Your task to perform on an android device: What time is it in London? Image 0: 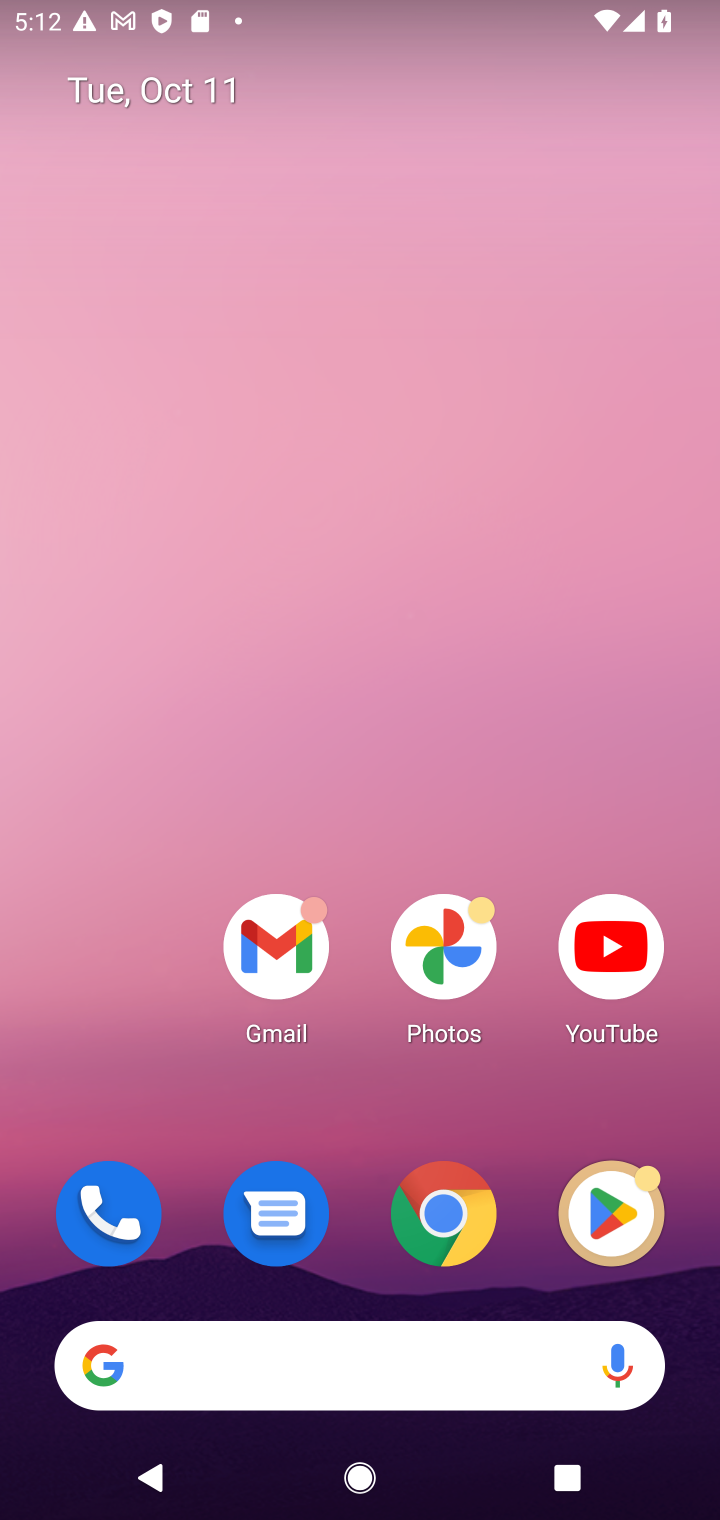
Step 0: drag from (225, 709) to (576, 141)
Your task to perform on an android device: What time is it in London? Image 1: 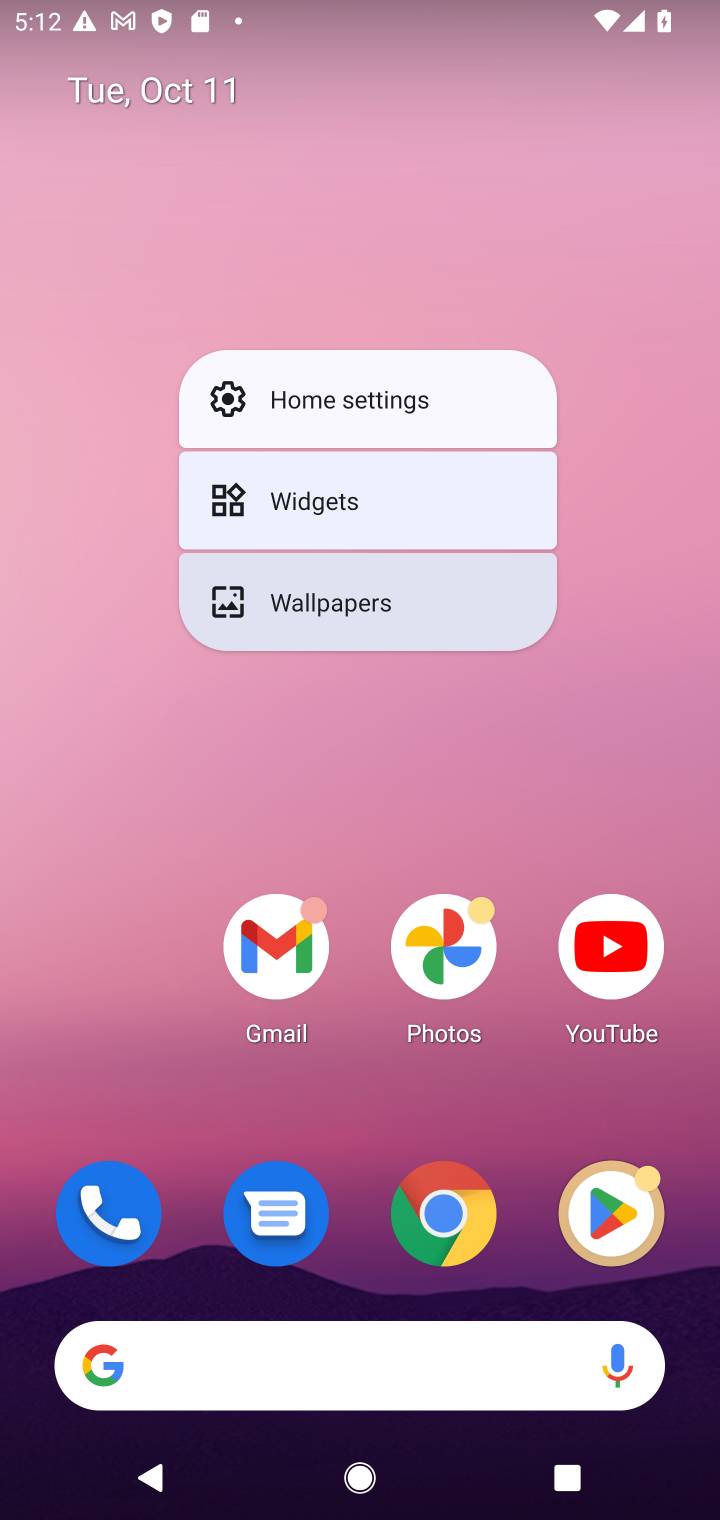
Step 1: click (408, 1082)
Your task to perform on an android device: What time is it in London? Image 2: 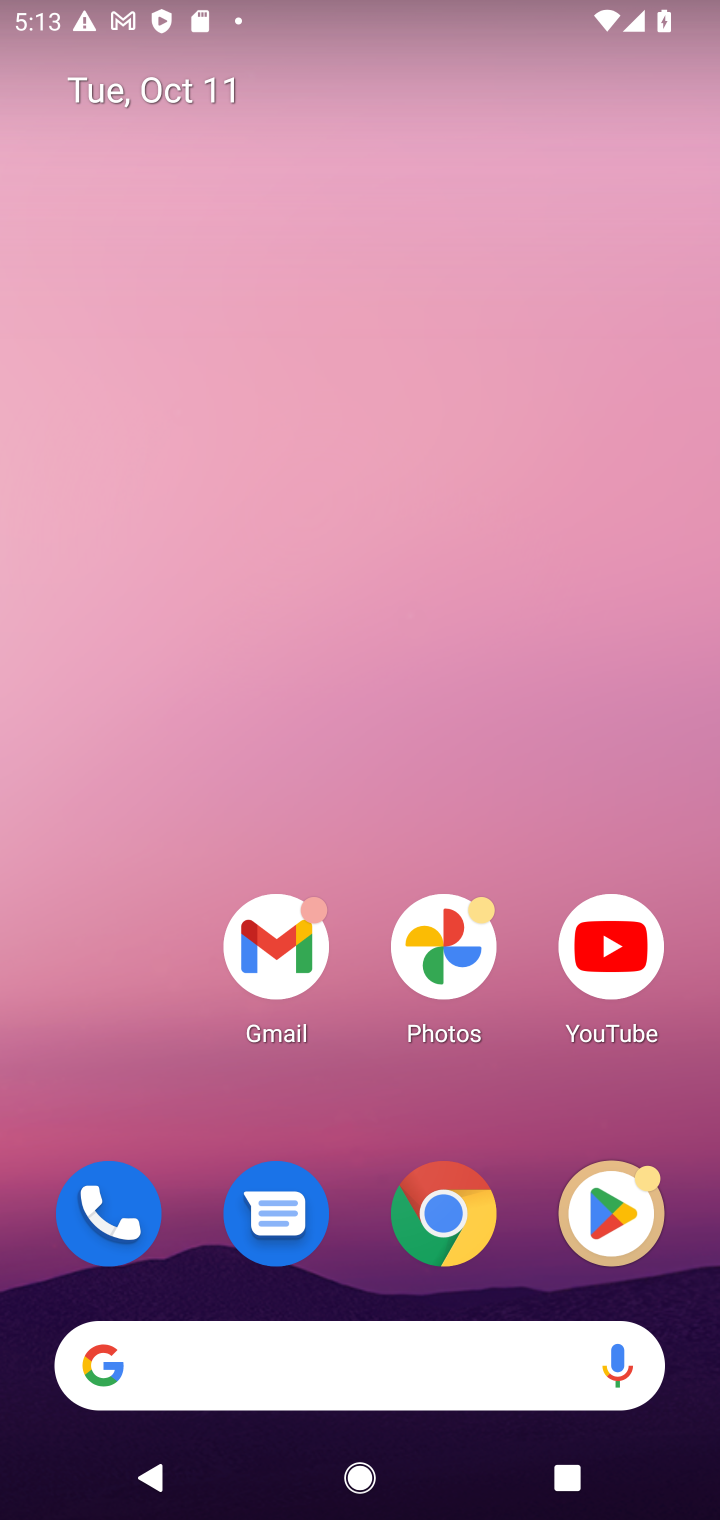
Step 2: click (223, 178)
Your task to perform on an android device: What time is it in London? Image 3: 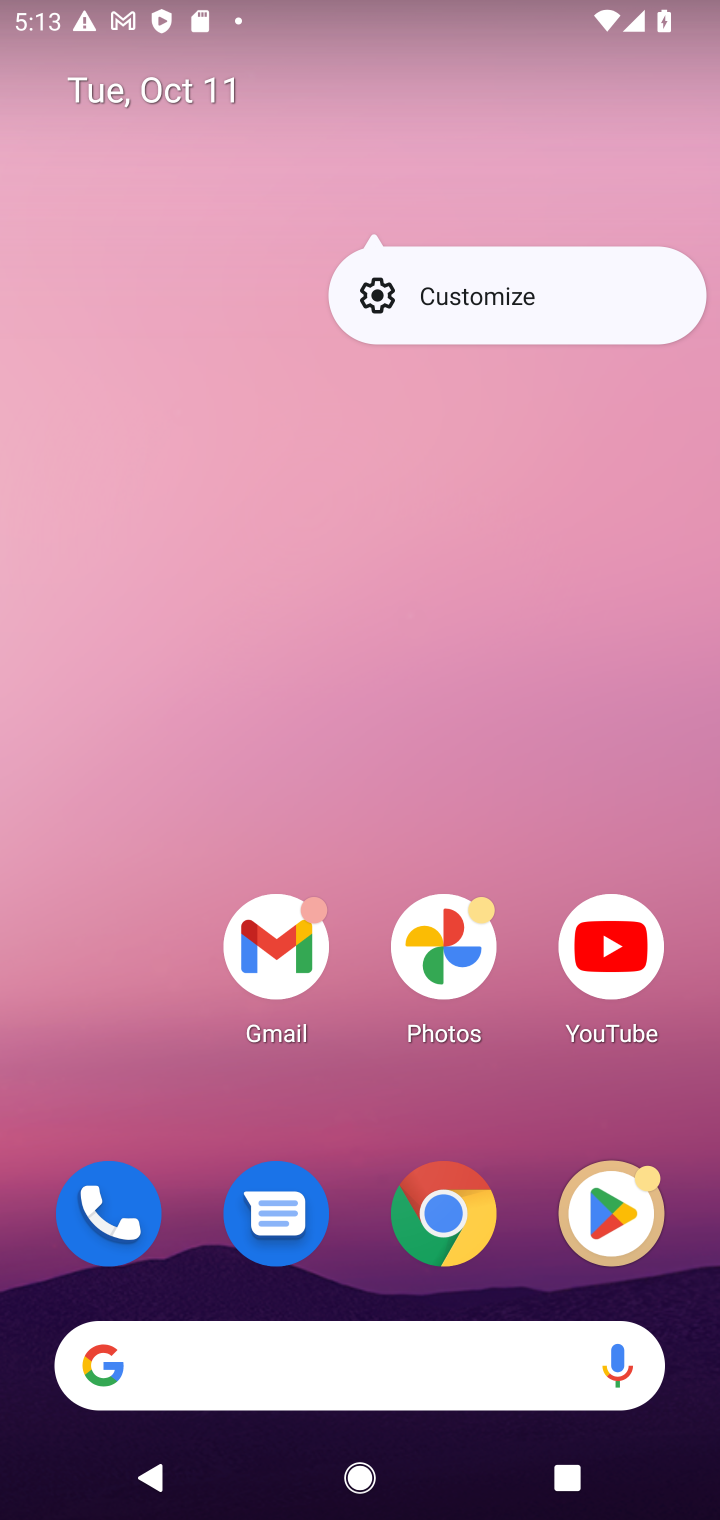
Step 3: drag from (343, 1315) to (475, 314)
Your task to perform on an android device: What time is it in London? Image 4: 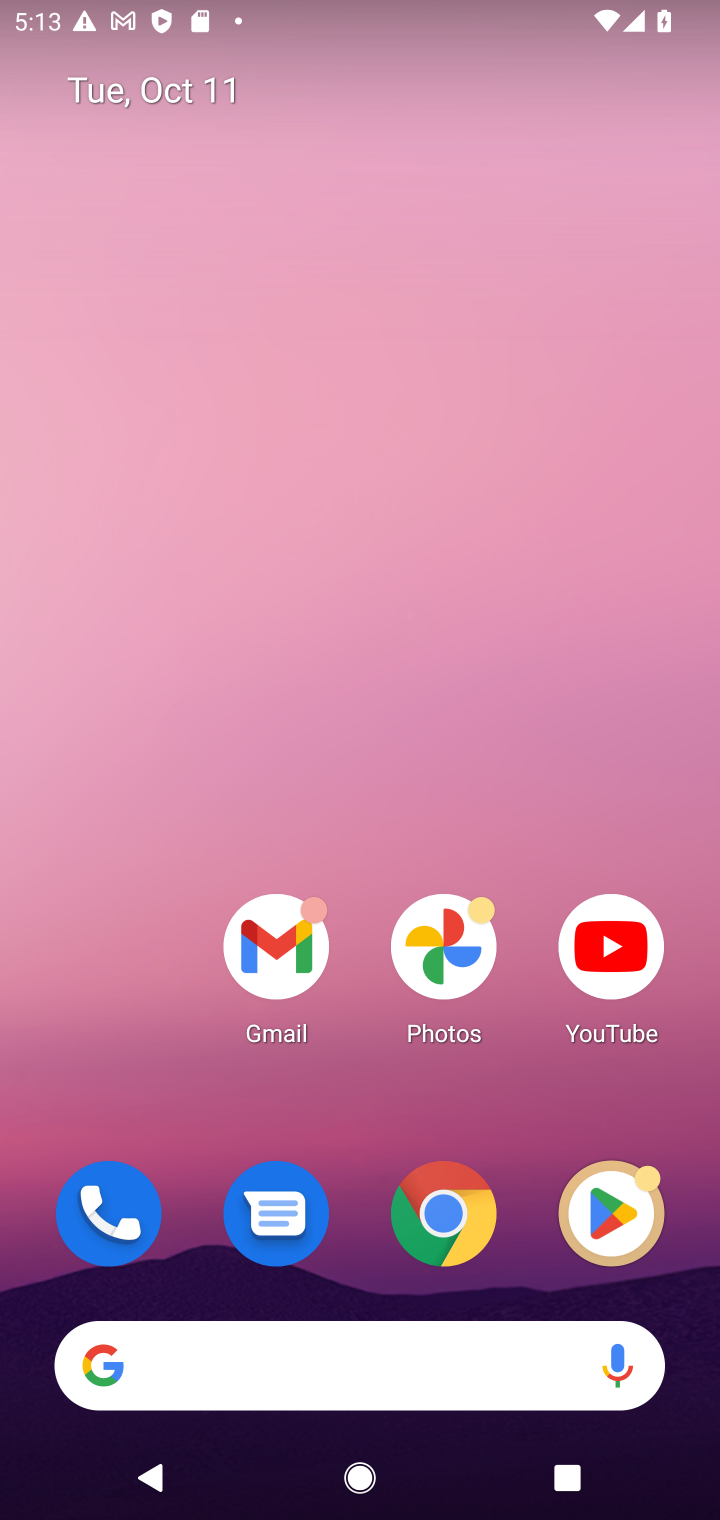
Step 4: drag from (398, 1355) to (435, 426)
Your task to perform on an android device: What time is it in London? Image 5: 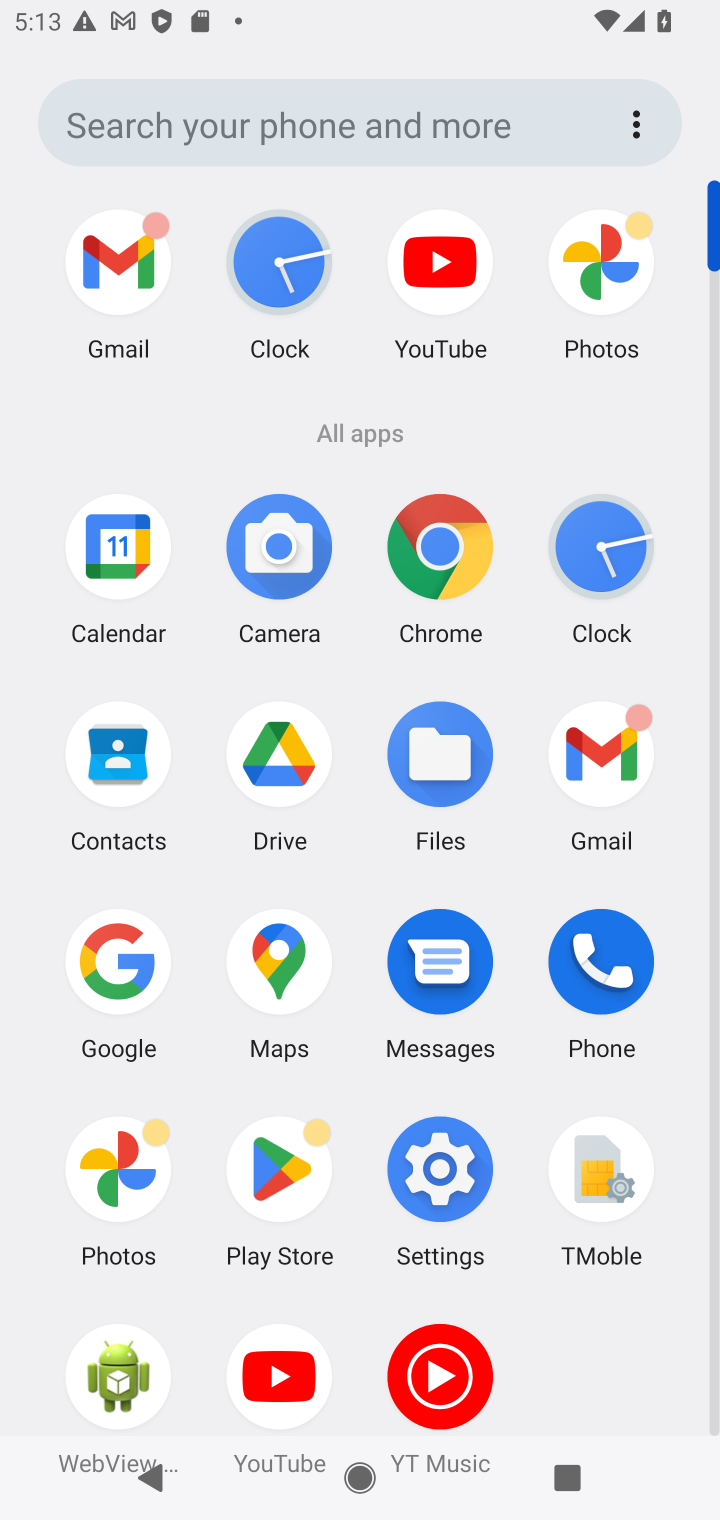
Step 5: click (121, 981)
Your task to perform on an android device: What time is it in London? Image 6: 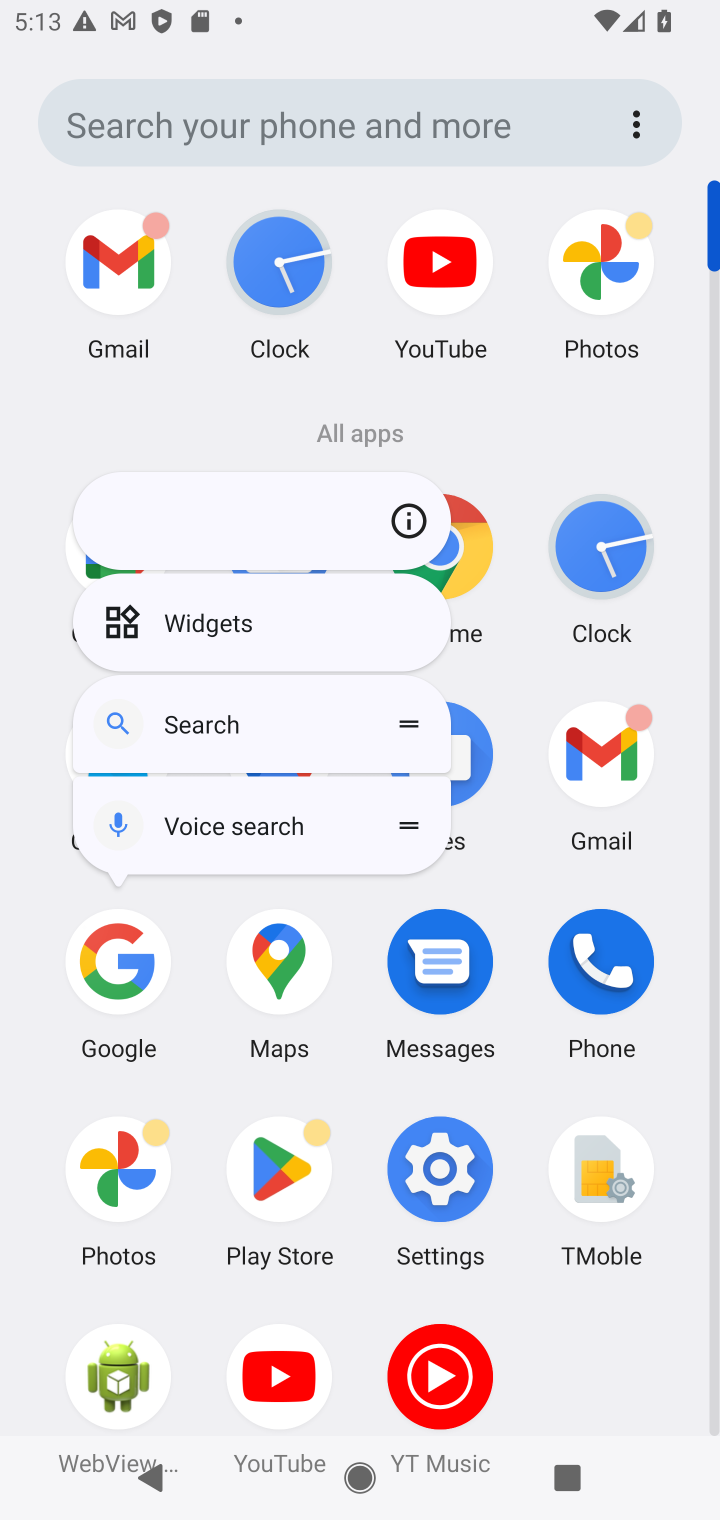
Step 6: click (122, 978)
Your task to perform on an android device: What time is it in London? Image 7: 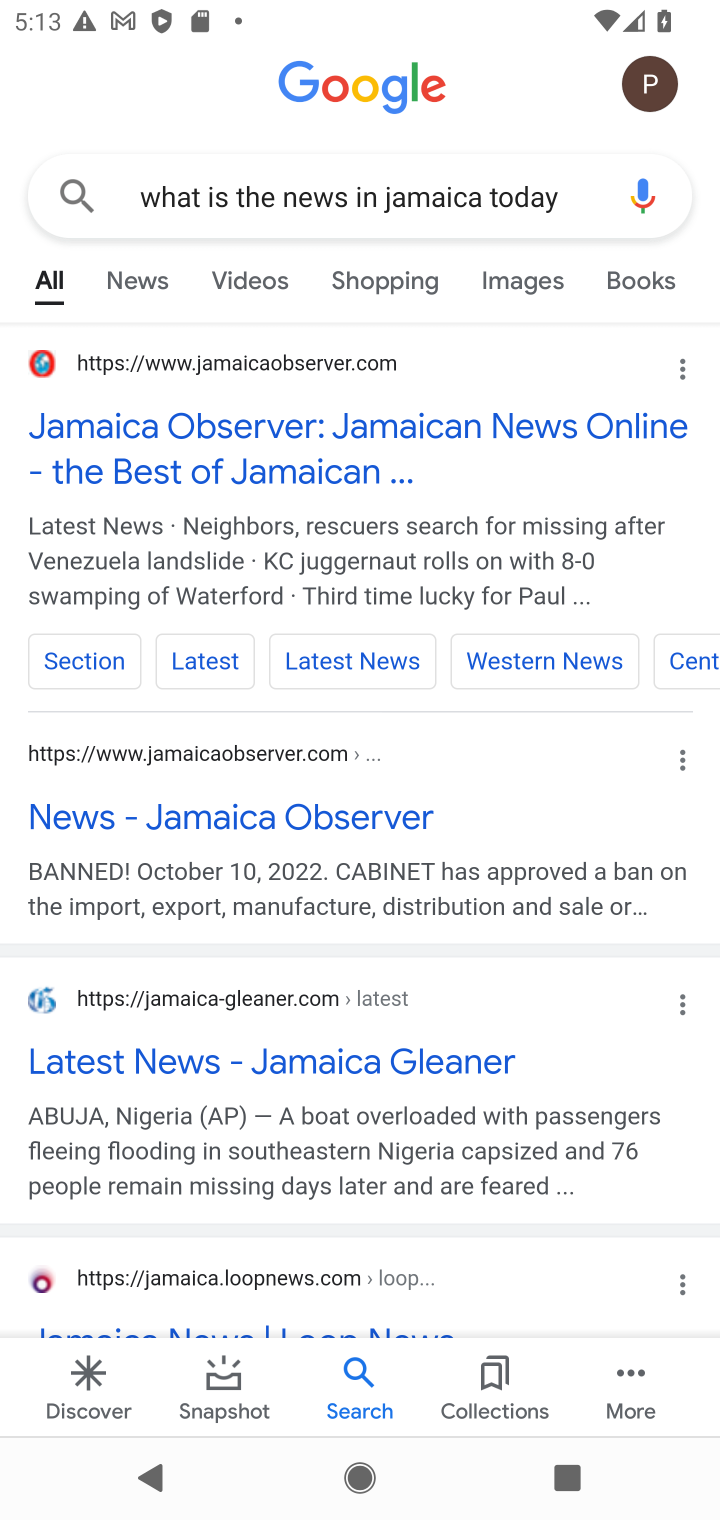
Step 7: click (367, 199)
Your task to perform on an android device: What time is it in London? Image 8: 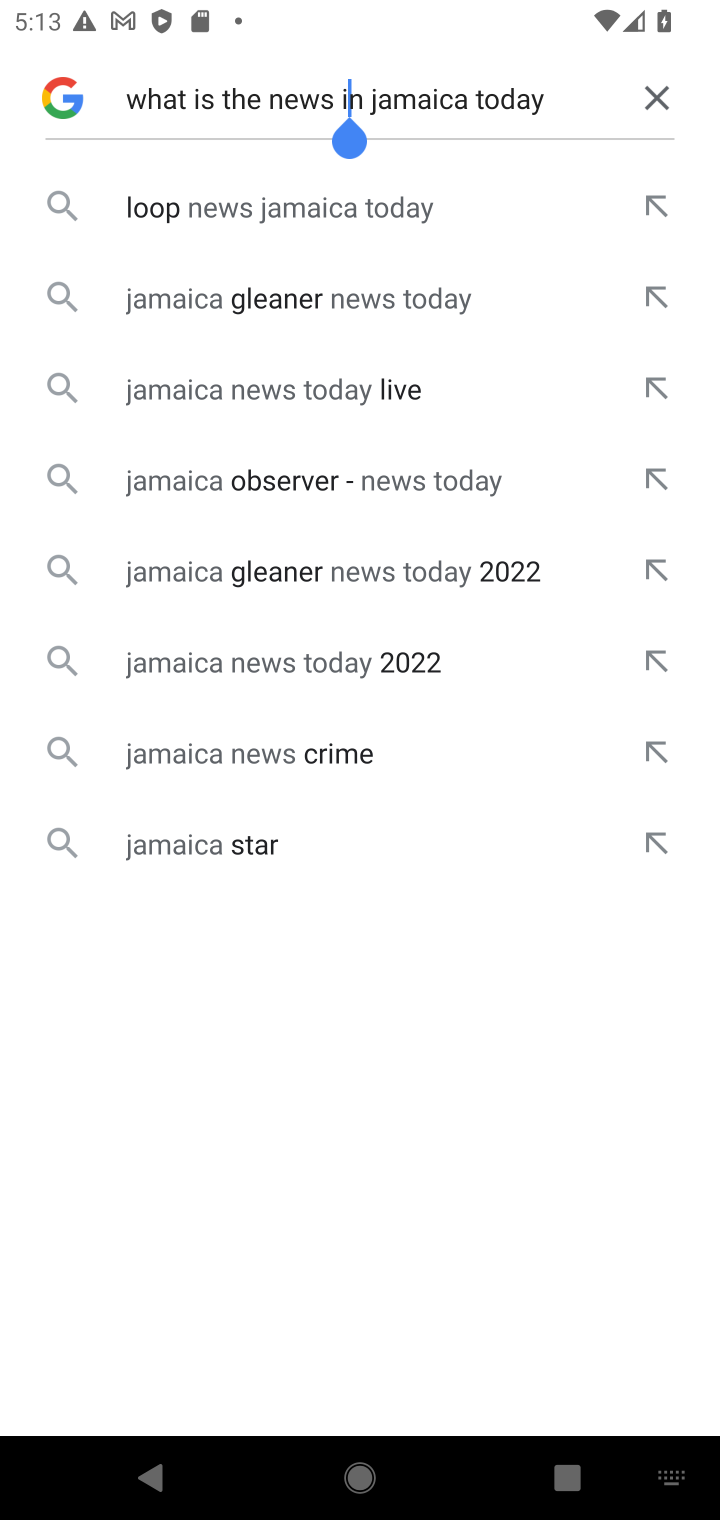
Step 8: click (669, 93)
Your task to perform on an android device: What time is it in London? Image 9: 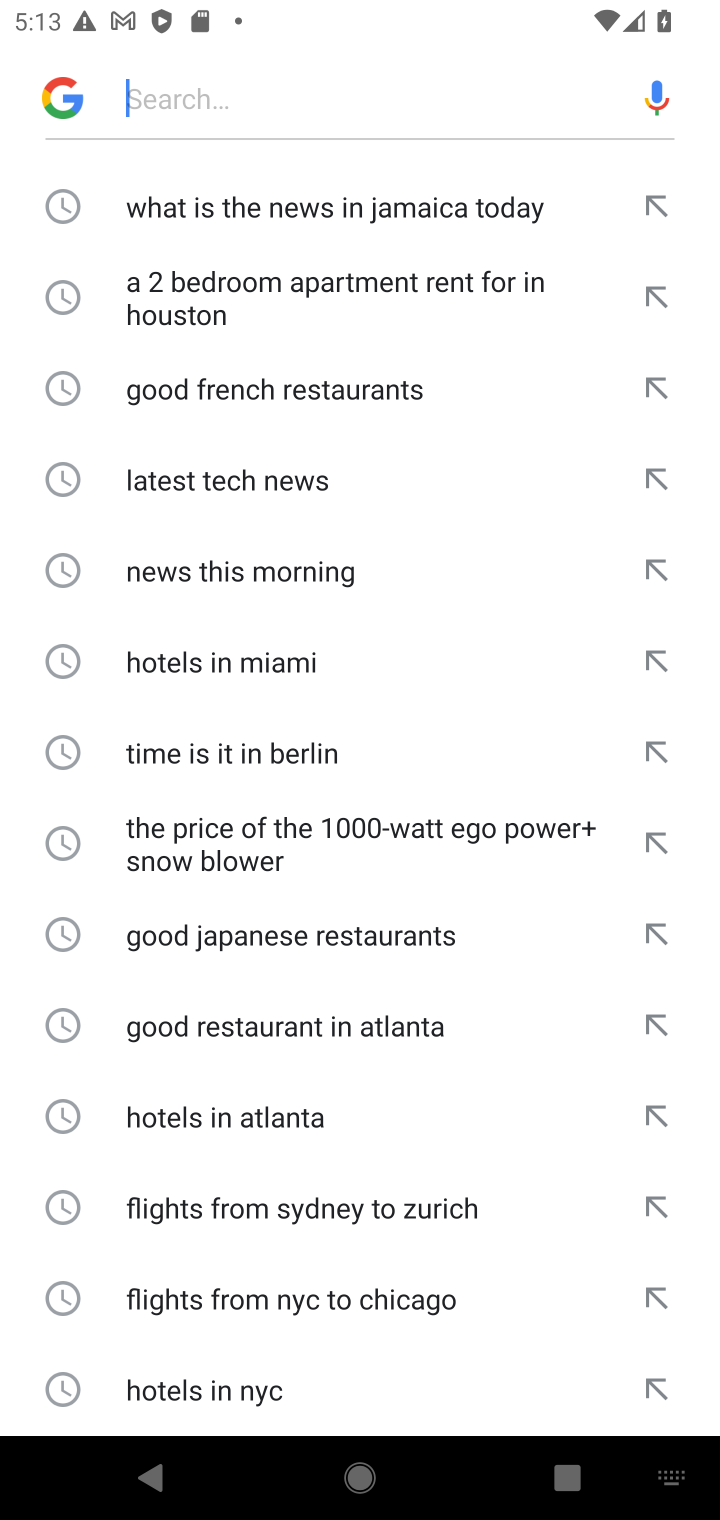
Step 9: type "What time is it in London?"
Your task to perform on an android device: What time is it in London? Image 10: 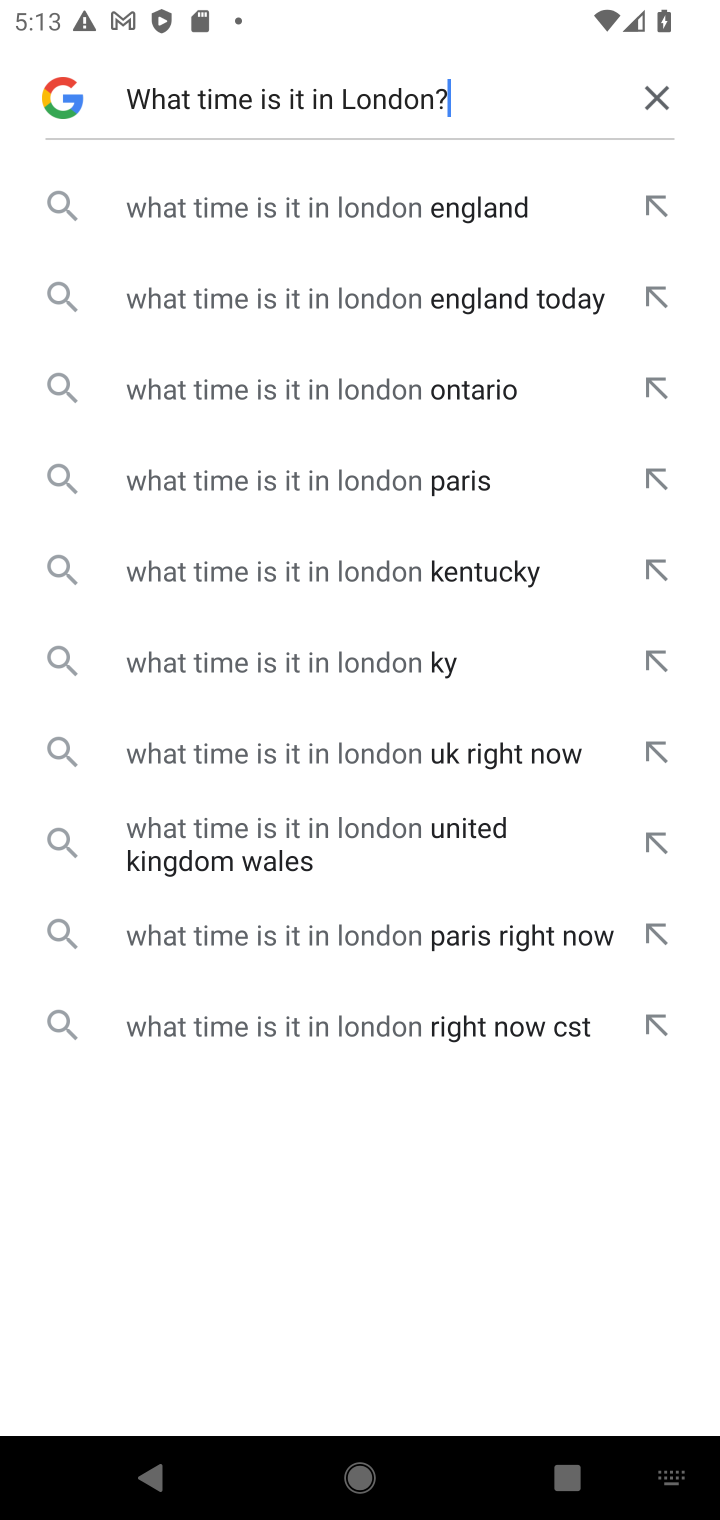
Step 10: click (277, 205)
Your task to perform on an android device: What time is it in London? Image 11: 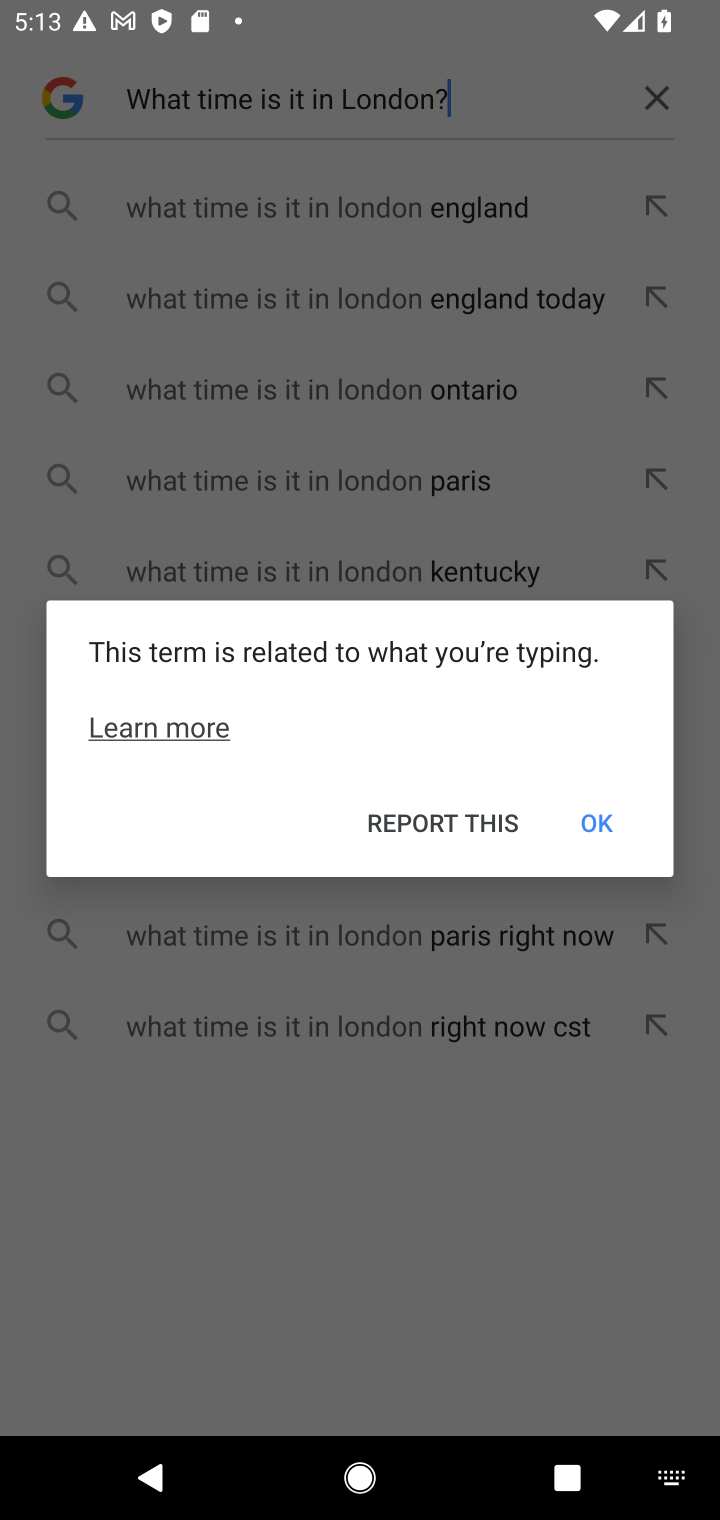
Step 11: click (604, 824)
Your task to perform on an android device: What time is it in London? Image 12: 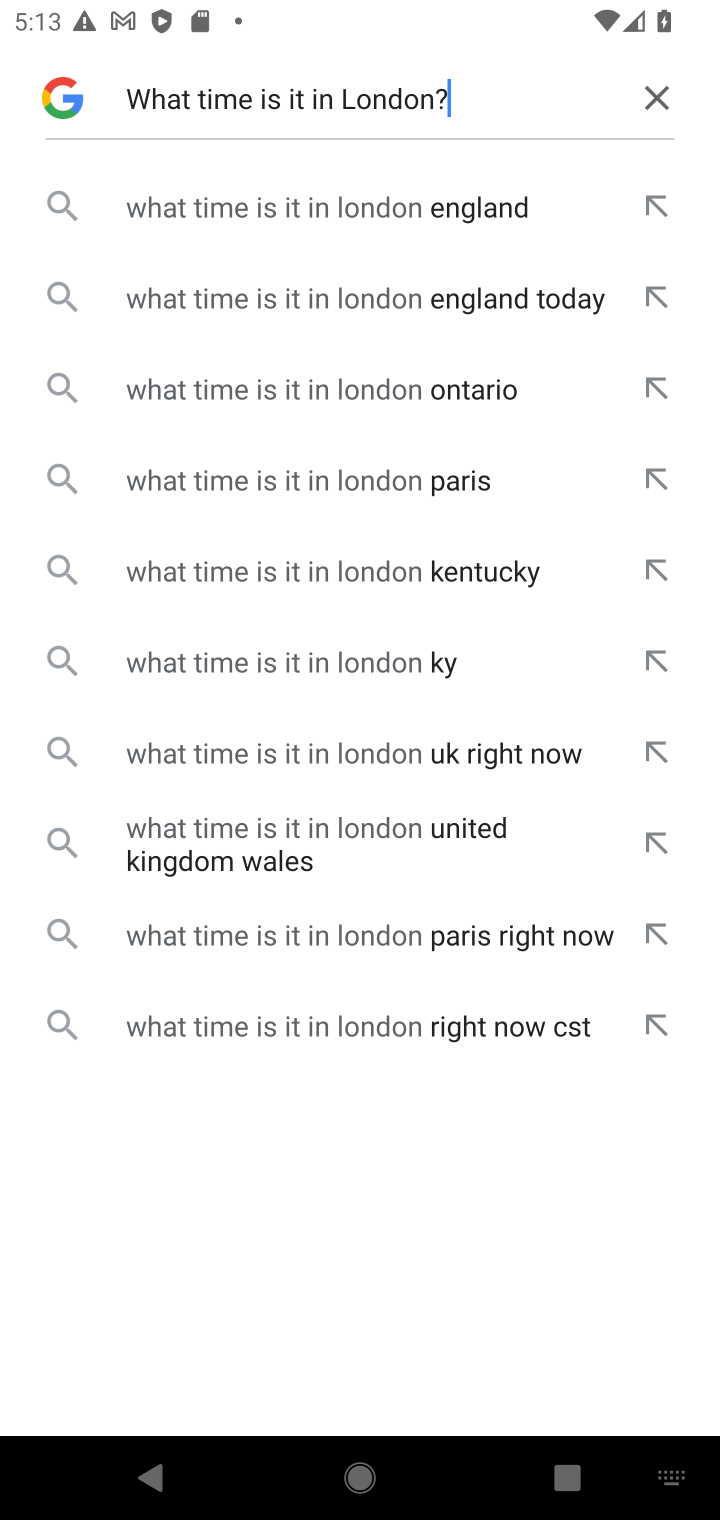
Step 12: click (452, 190)
Your task to perform on an android device: What time is it in London? Image 13: 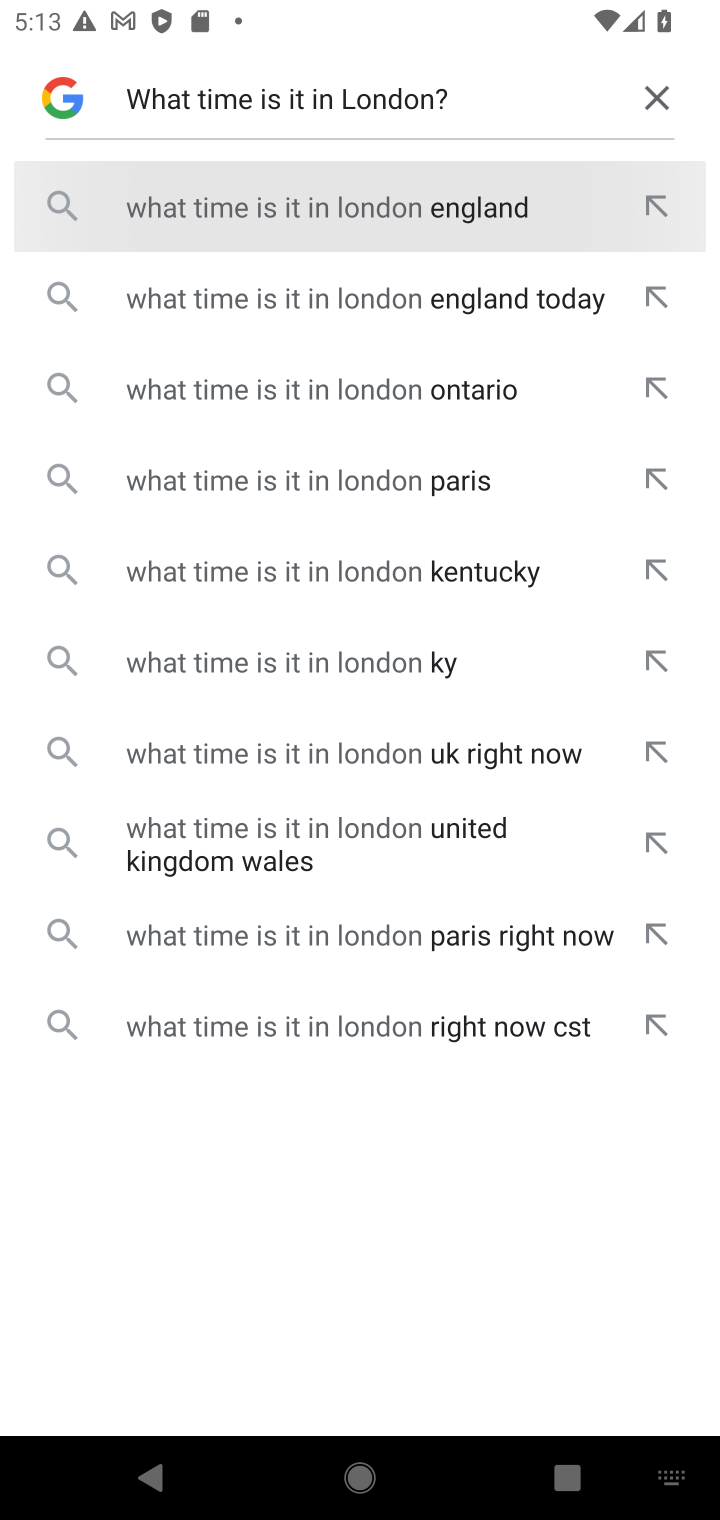
Step 13: click (438, 220)
Your task to perform on an android device: What time is it in London? Image 14: 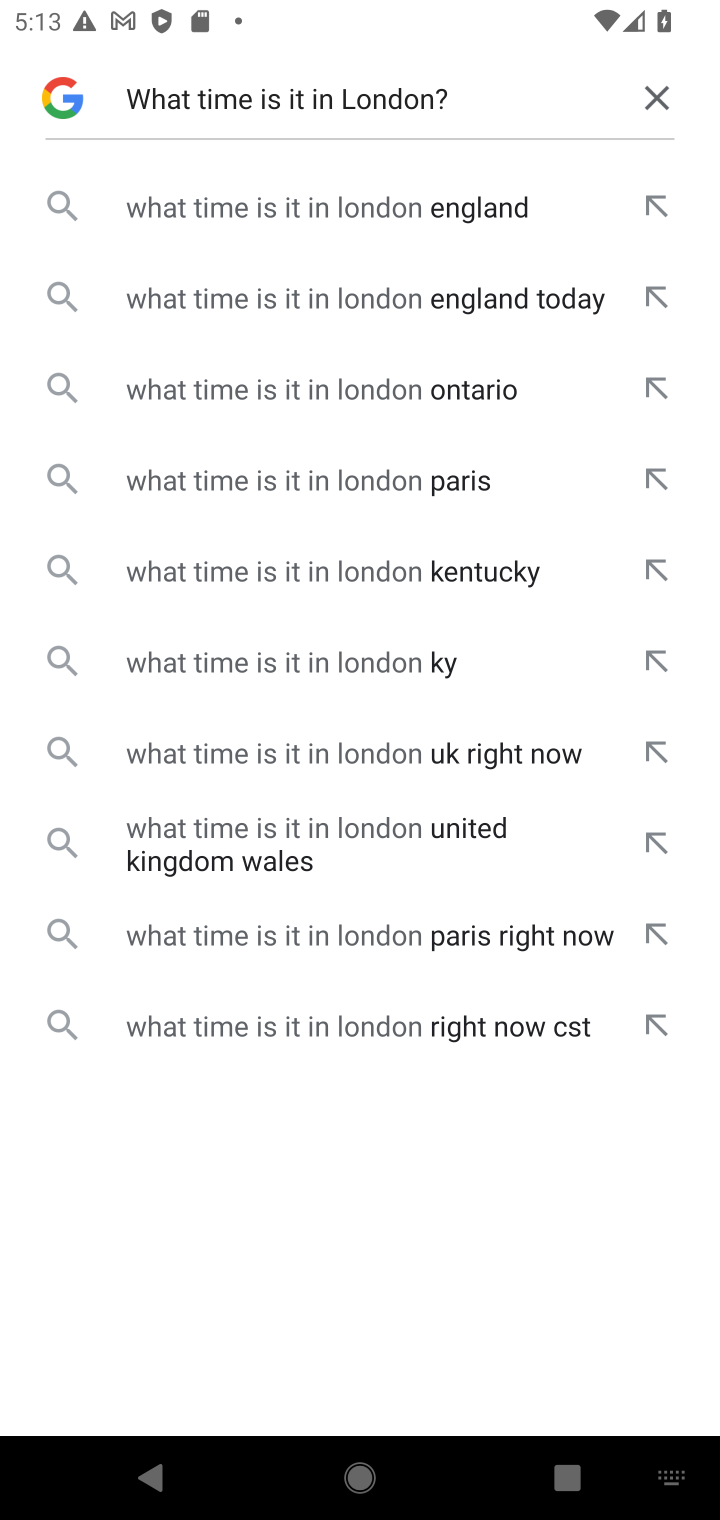
Step 14: click (407, 212)
Your task to perform on an android device: What time is it in London? Image 15: 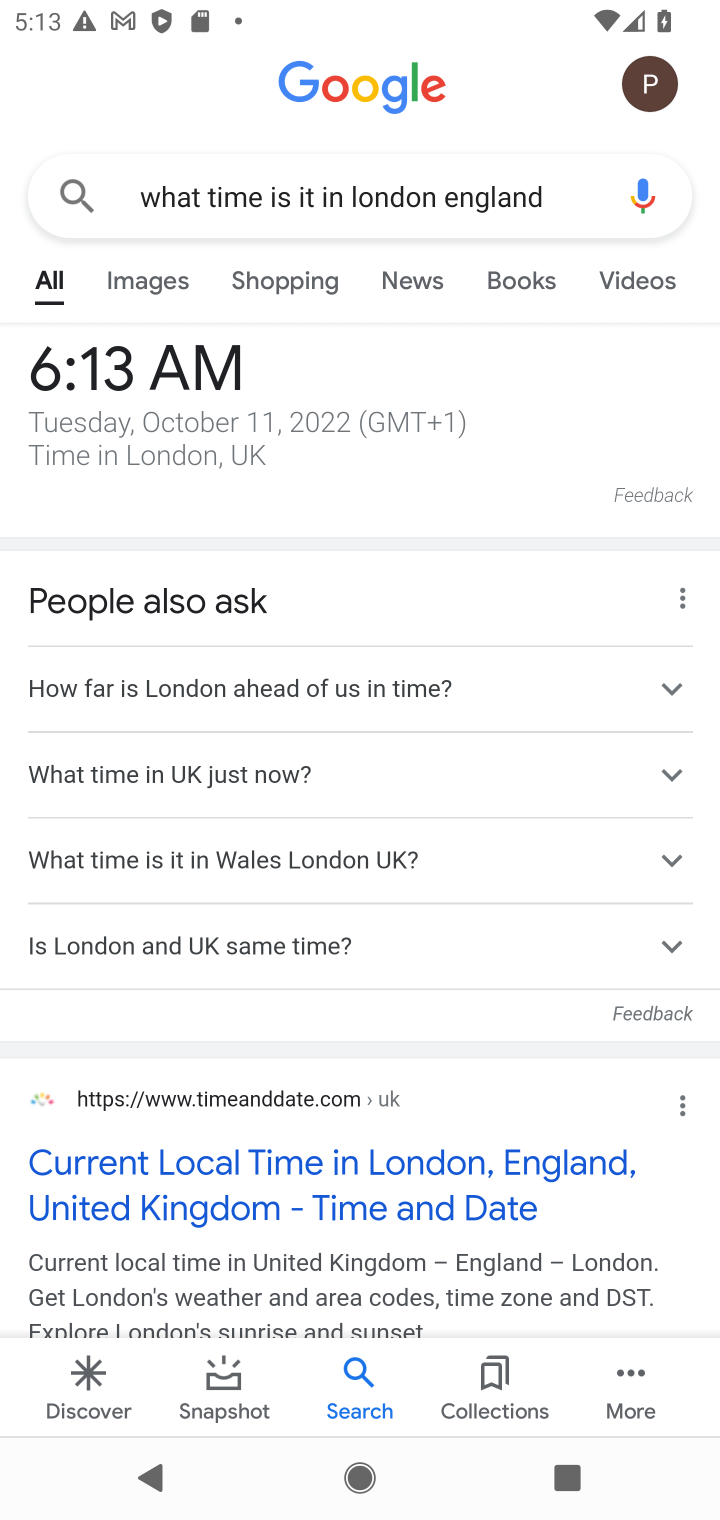
Step 15: task complete